Your task to perform on an android device: Go to notification settings Image 0: 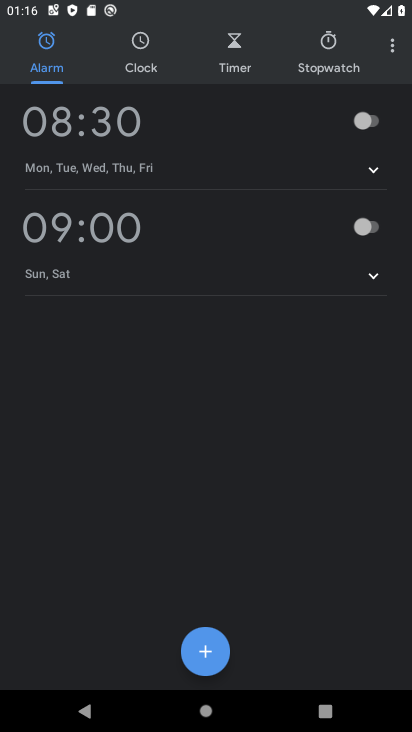
Step 0: press home button
Your task to perform on an android device: Go to notification settings Image 1: 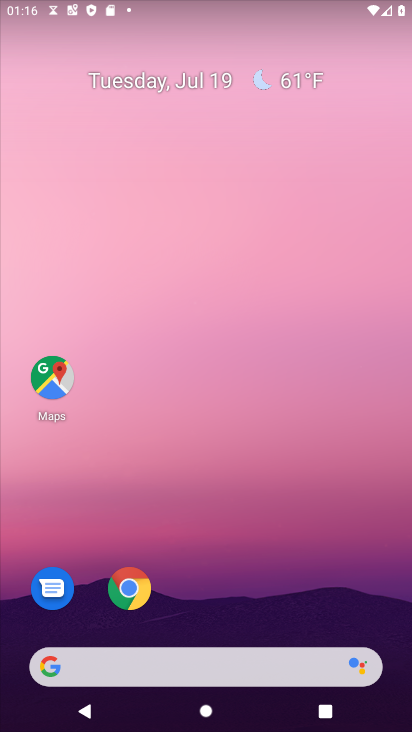
Step 1: drag from (260, 686) to (232, 161)
Your task to perform on an android device: Go to notification settings Image 2: 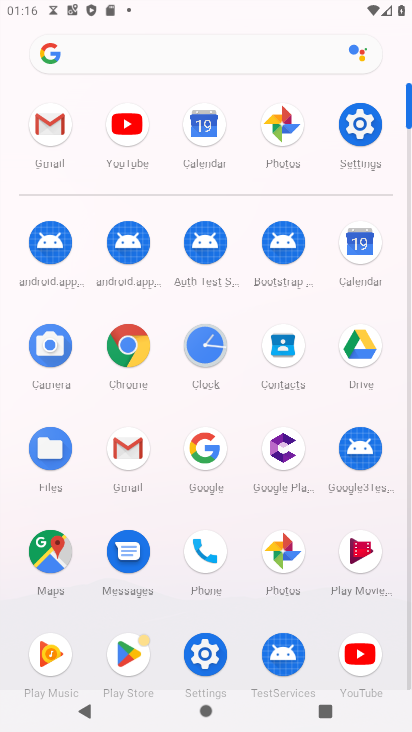
Step 2: click (202, 656)
Your task to perform on an android device: Go to notification settings Image 3: 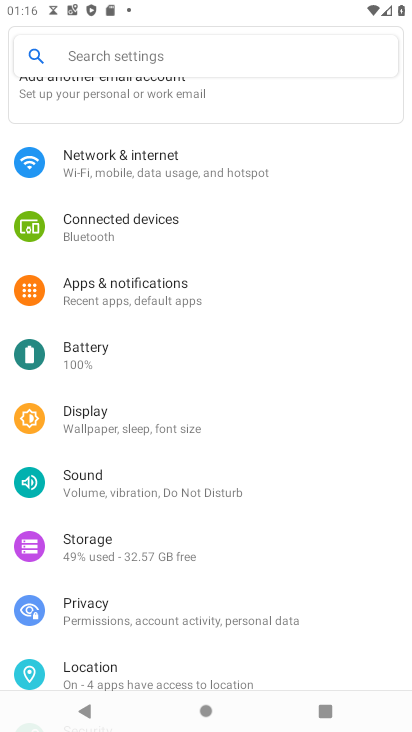
Step 3: click (179, 54)
Your task to perform on an android device: Go to notification settings Image 4: 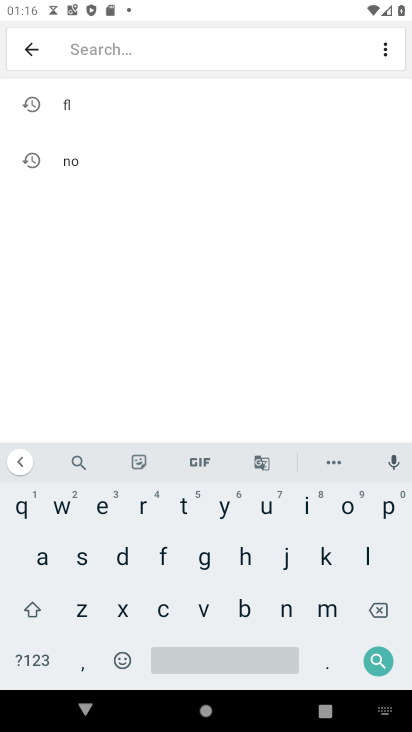
Step 4: click (284, 608)
Your task to perform on an android device: Go to notification settings Image 5: 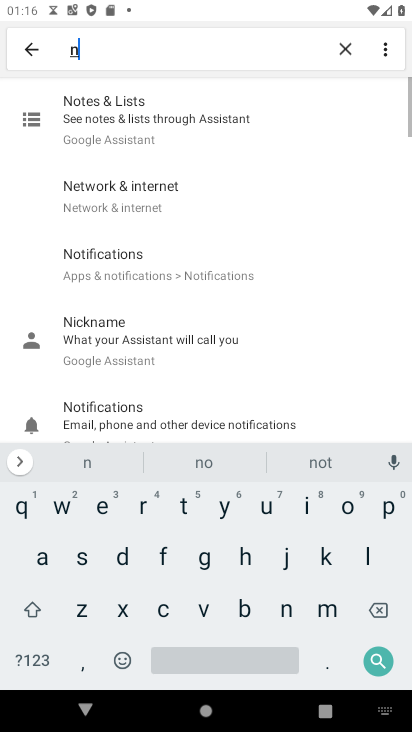
Step 5: click (346, 514)
Your task to perform on an android device: Go to notification settings Image 6: 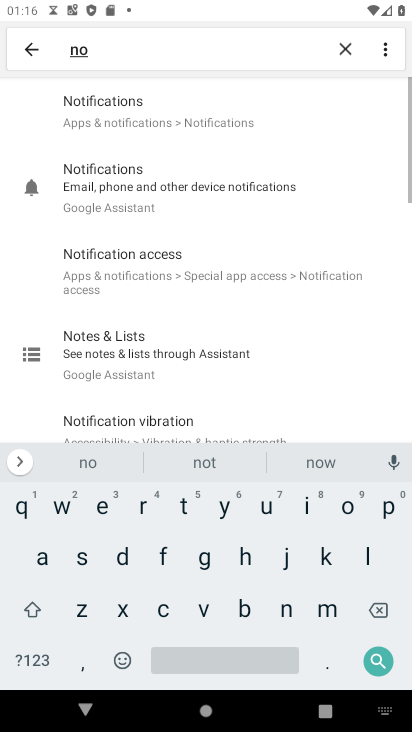
Step 6: click (139, 109)
Your task to perform on an android device: Go to notification settings Image 7: 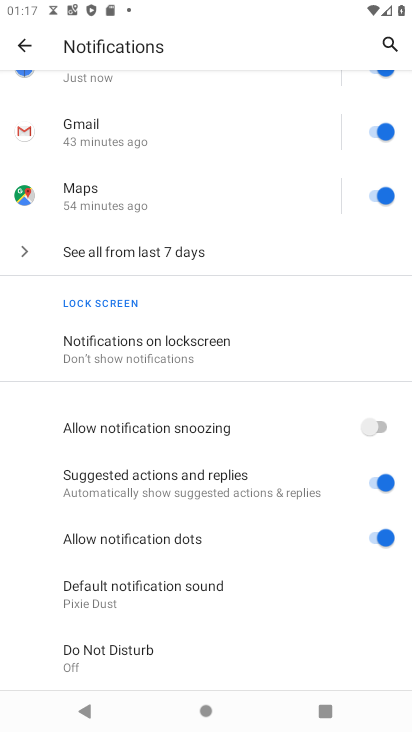
Step 7: click (115, 351)
Your task to perform on an android device: Go to notification settings Image 8: 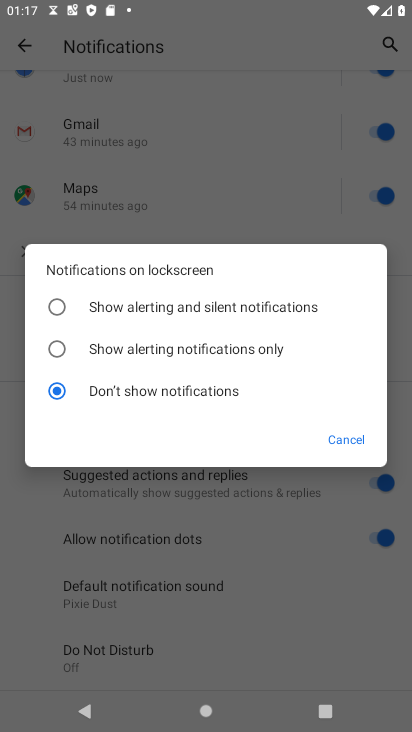
Step 8: click (156, 312)
Your task to perform on an android device: Go to notification settings Image 9: 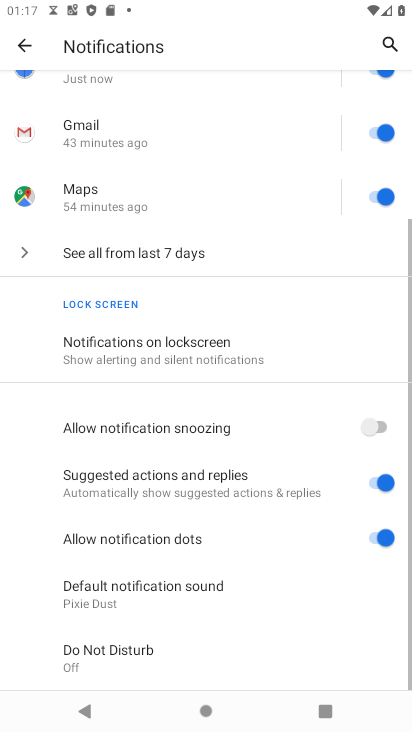
Step 9: task complete